Your task to perform on an android device: Do I have any events this weekend? Image 0: 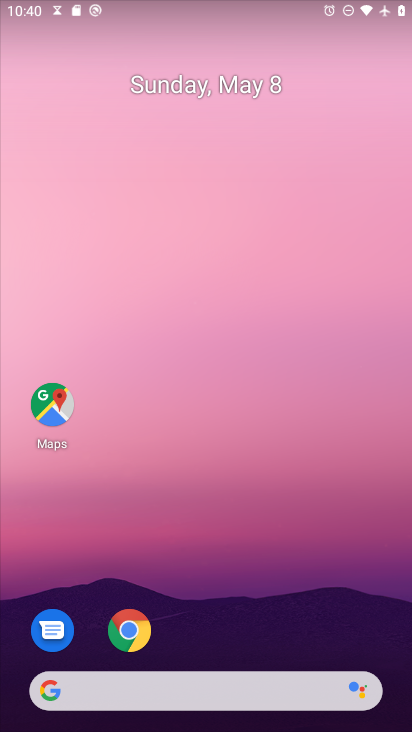
Step 0: press home button
Your task to perform on an android device: Do I have any events this weekend? Image 1: 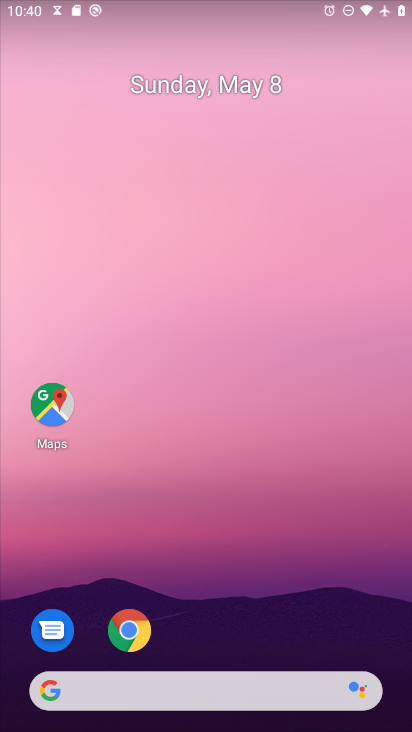
Step 1: drag from (205, 687) to (351, 97)
Your task to perform on an android device: Do I have any events this weekend? Image 2: 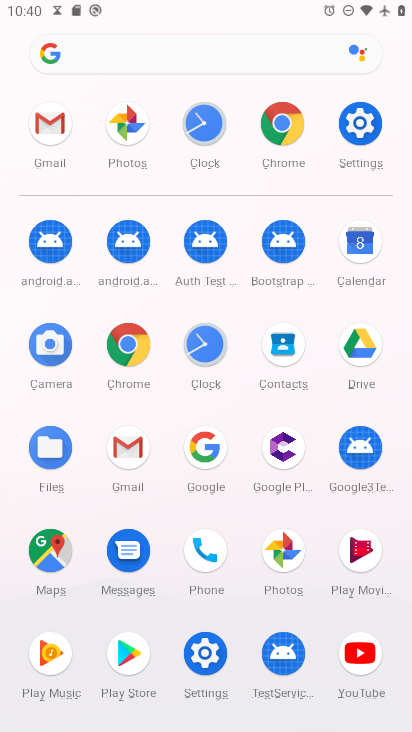
Step 2: click (352, 246)
Your task to perform on an android device: Do I have any events this weekend? Image 3: 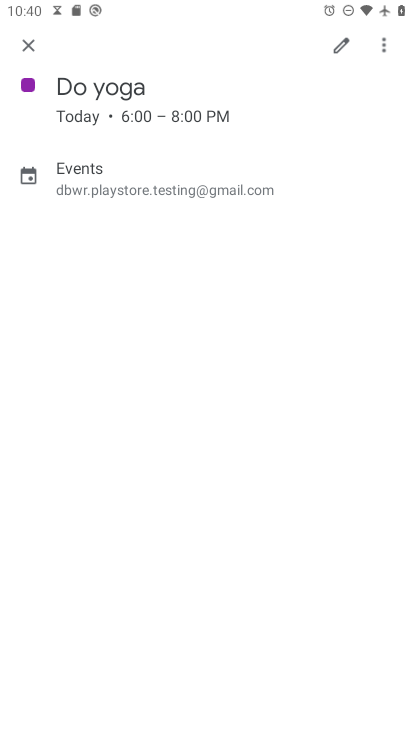
Step 3: click (36, 46)
Your task to perform on an android device: Do I have any events this weekend? Image 4: 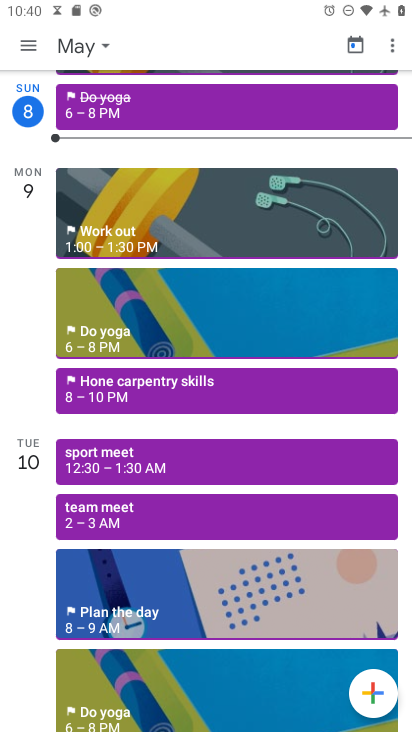
Step 4: click (85, 45)
Your task to perform on an android device: Do I have any events this weekend? Image 5: 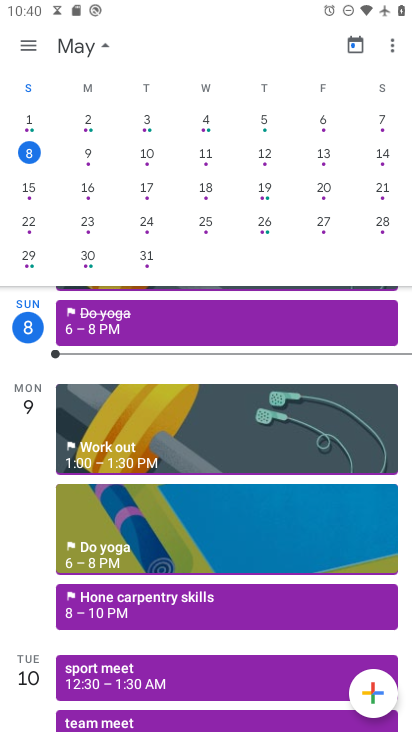
Step 5: click (393, 154)
Your task to perform on an android device: Do I have any events this weekend? Image 6: 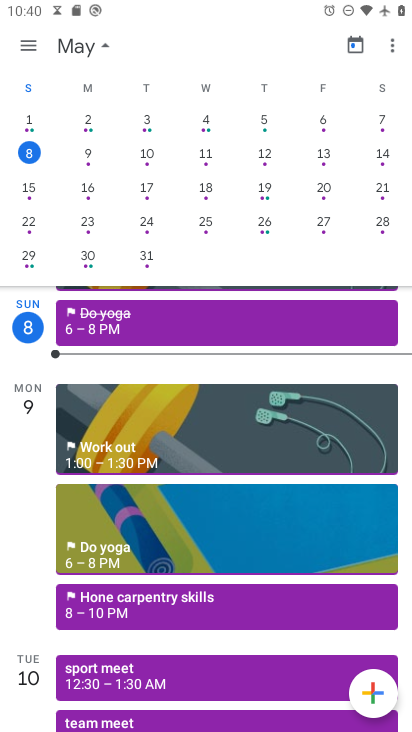
Step 6: click (389, 140)
Your task to perform on an android device: Do I have any events this weekend? Image 7: 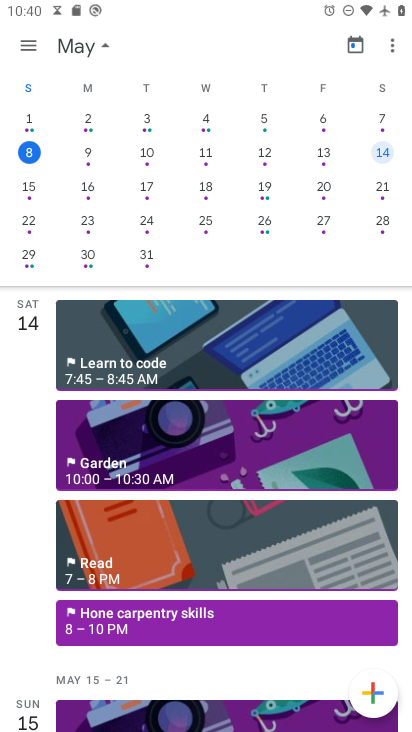
Step 7: click (26, 43)
Your task to perform on an android device: Do I have any events this weekend? Image 8: 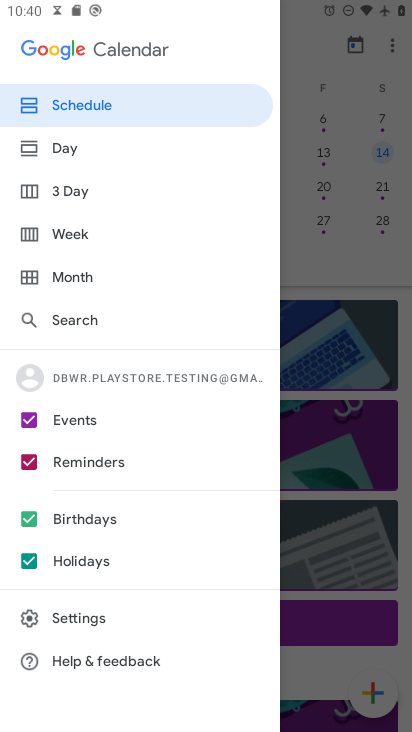
Step 8: click (108, 111)
Your task to perform on an android device: Do I have any events this weekend? Image 9: 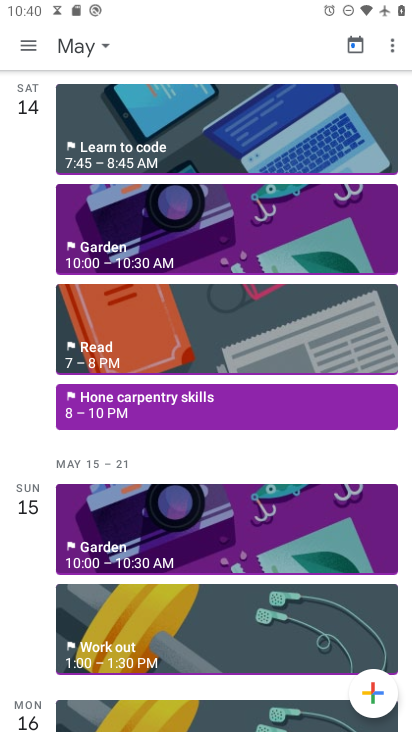
Step 9: click (155, 247)
Your task to perform on an android device: Do I have any events this weekend? Image 10: 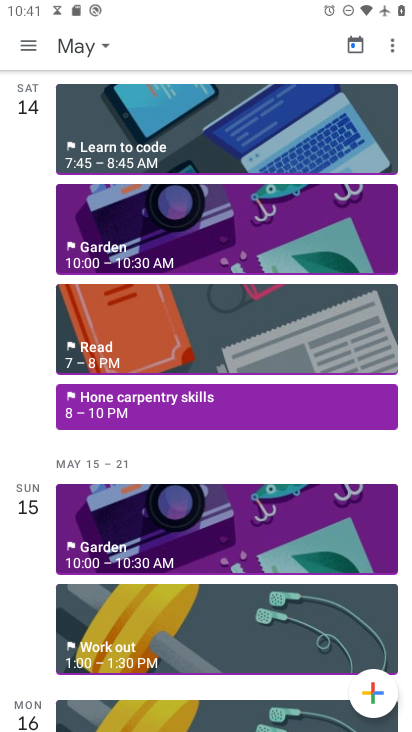
Step 10: click (281, 232)
Your task to perform on an android device: Do I have any events this weekend? Image 11: 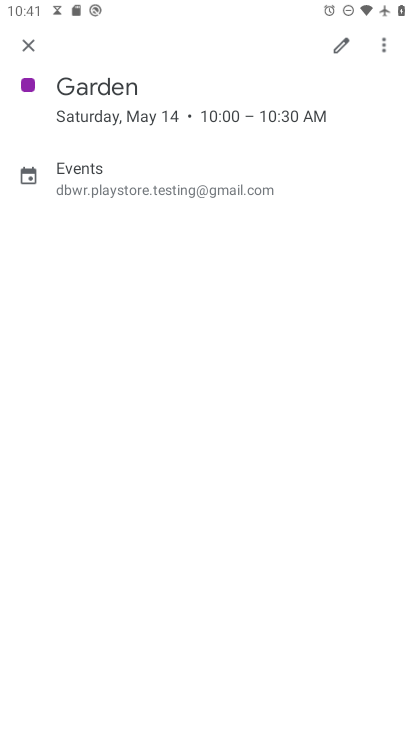
Step 11: task complete